Your task to perform on an android device: add a label to a message in the gmail app Image 0: 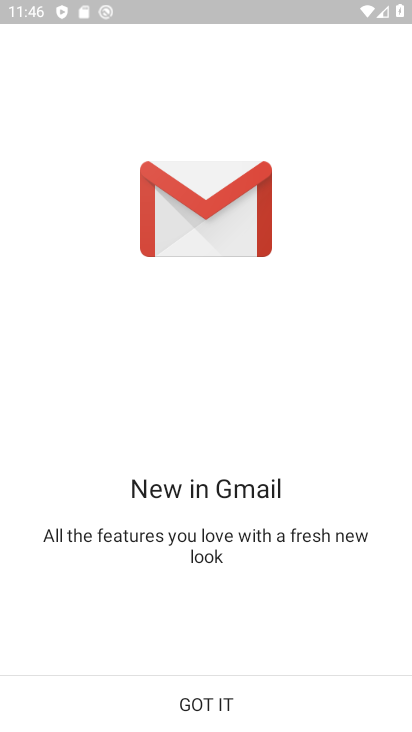
Step 0: click (332, 701)
Your task to perform on an android device: add a label to a message in the gmail app Image 1: 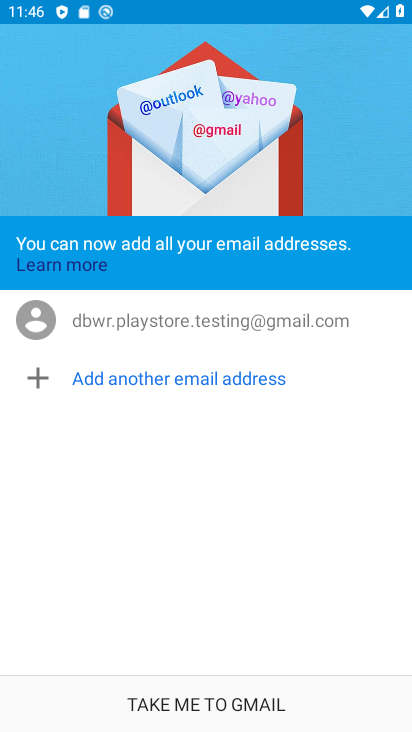
Step 1: click (216, 710)
Your task to perform on an android device: add a label to a message in the gmail app Image 2: 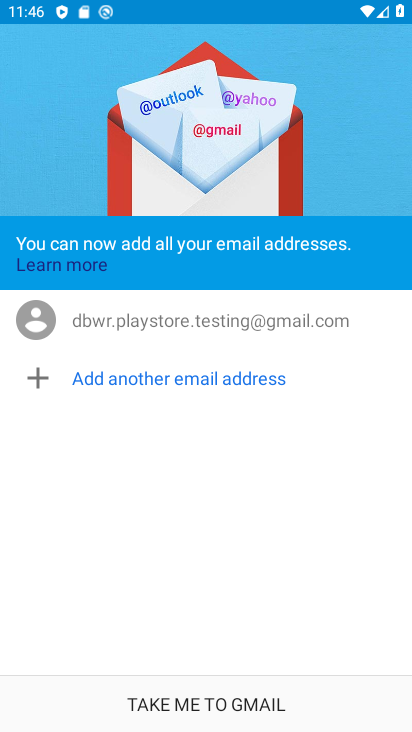
Step 2: click (216, 710)
Your task to perform on an android device: add a label to a message in the gmail app Image 3: 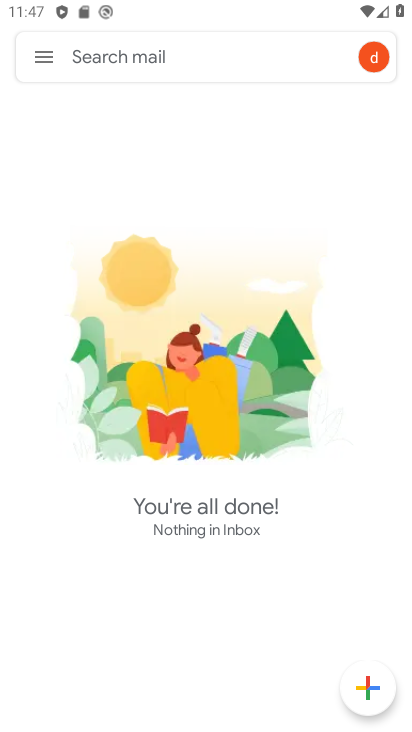
Step 3: click (46, 61)
Your task to perform on an android device: add a label to a message in the gmail app Image 4: 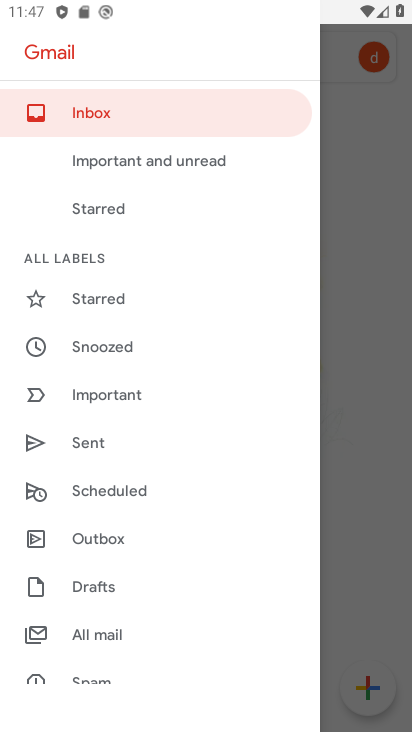
Step 4: click (98, 634)
Your task to perform on an android device: add a label to a message in the gmail app Image 5: 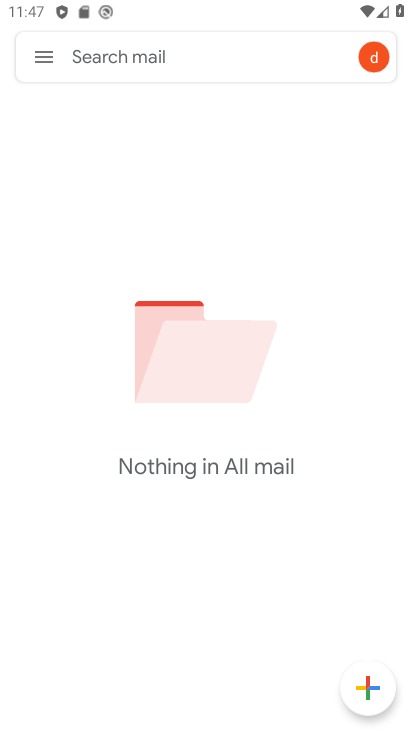
Step 5: task complete